Your task to perform on an android device: turn on bluetooth scan Image 0: 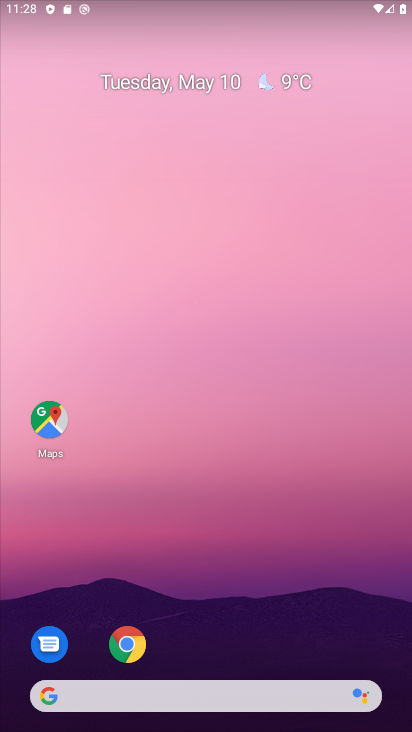
Step 0: drag from (193, 675) to (261, 179)
Your task to perform on an android device: turn on bluetooth scan Image 1: 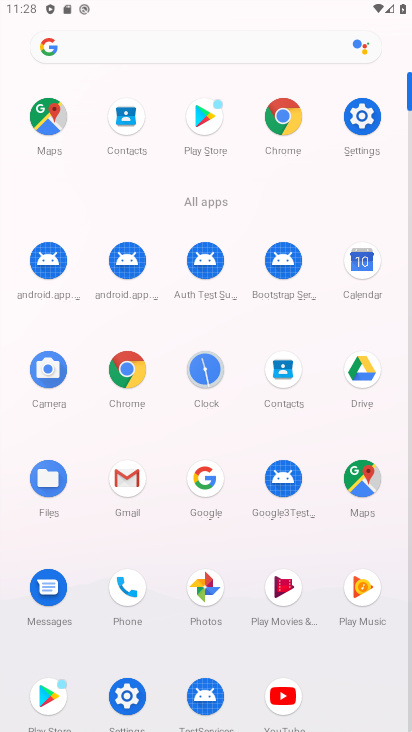
Step 1: click (135, 703)
Your task to perform on an android device: turn on bluetooth scan Image 2: 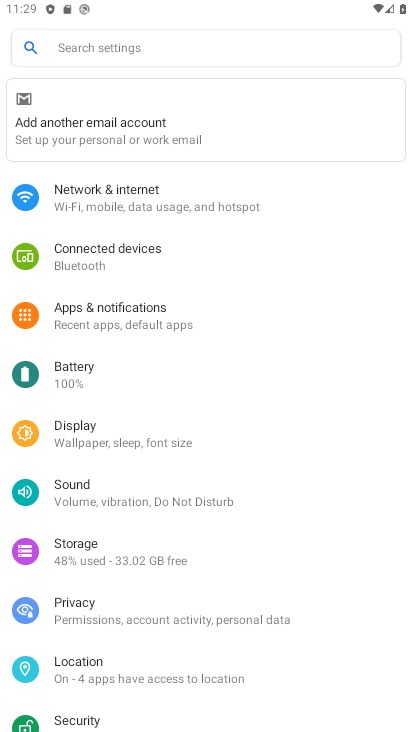
Step 2: click (79, 670)
Your task to perform on an android device: turn on bluetooth scan Image 3: 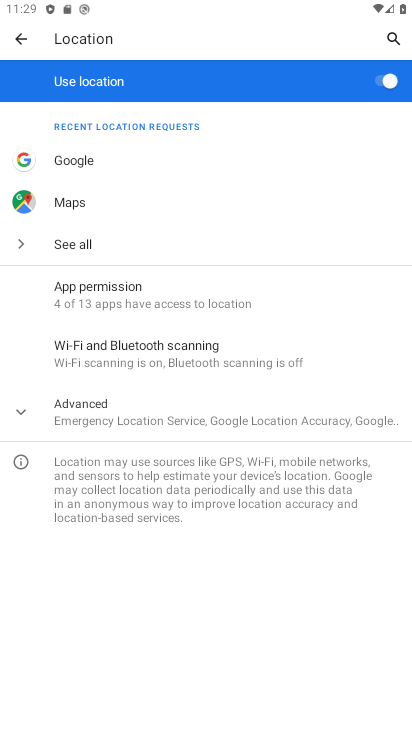
Step 3: click (157, 352)
Your task to perform on an android device: turn on bluetooth scan Image 4: 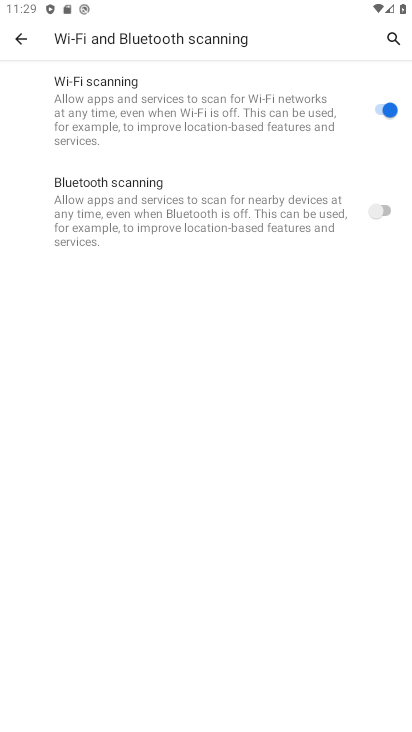
Step 4: click (367, 218)
Your task to perform on an android device: turn on bluetooth scan Image 5: 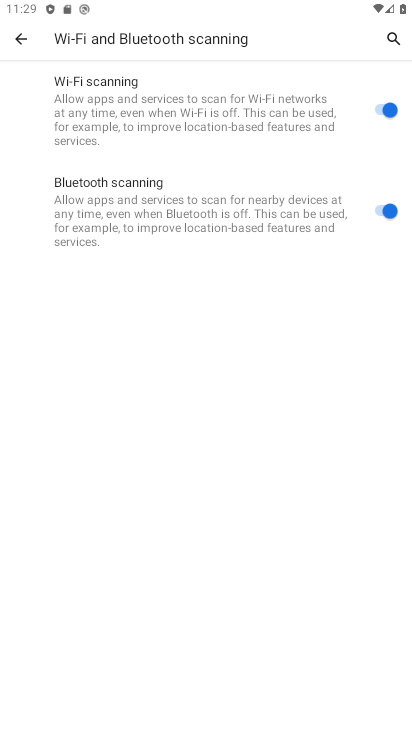
Step 5: task complete